Your task to perform on an android device: check google app version Image 0: 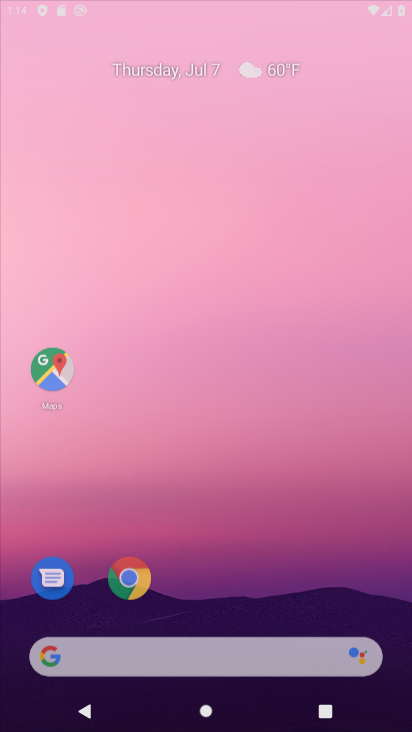
Step 0: drag from (210, 442) to (230, 137)
Your task to perform on an android device: check google app version Image 1: 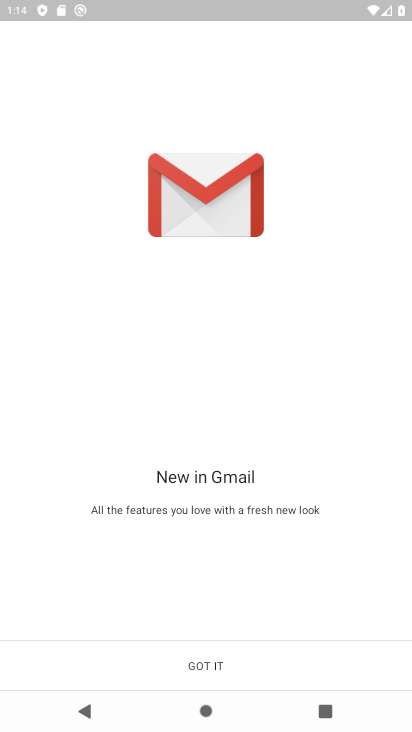
Step 1: press home button
Your task to perform on an android device: check google app version Image 2: 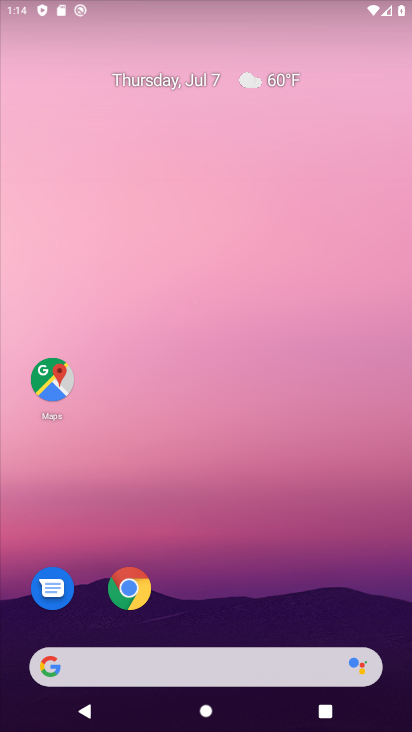
Step 2: drag from (201, 644) to (257, 69)
Your task to perform on an android device: check google app version Image 3: 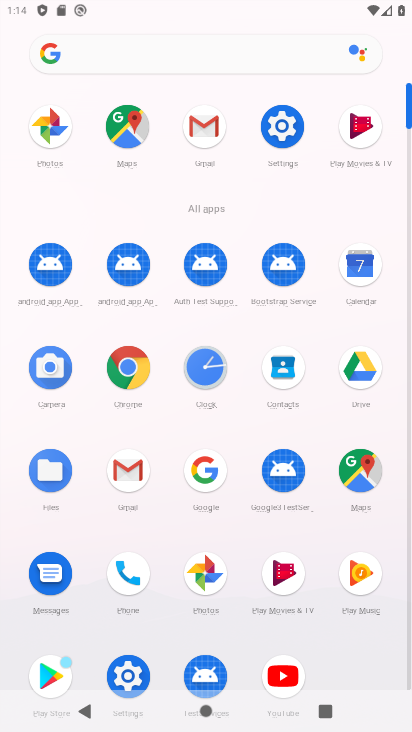
Step 3: click (129, 675)
Your task to perform on an android device: check google app version Image 4: 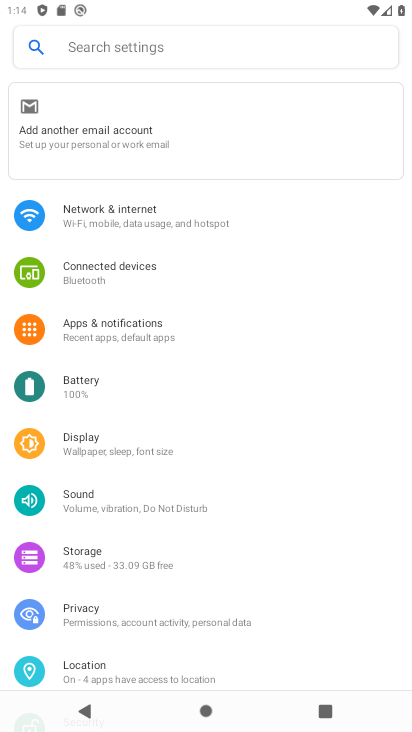
Step 4: click (157, 344)
Your task to perform on an android device: check google app version Image 5: 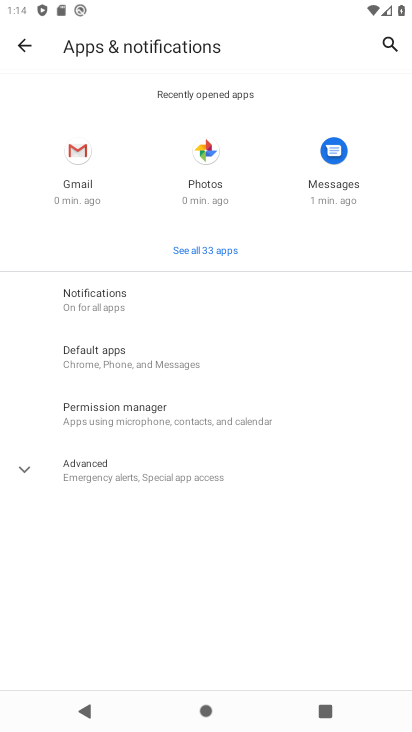
Step 5: click (227, 258)
Your task to perform on an android device: check google app version Image 6: 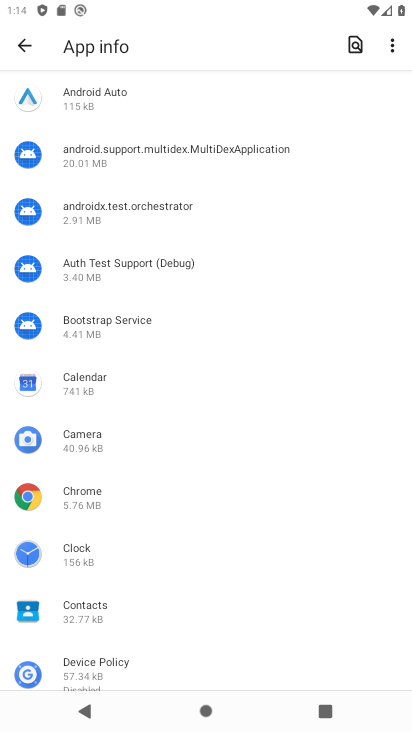
Step 6: drag from (103, 612) to (229, 99)
Your task to perform on an android device: check google app version Image 7: 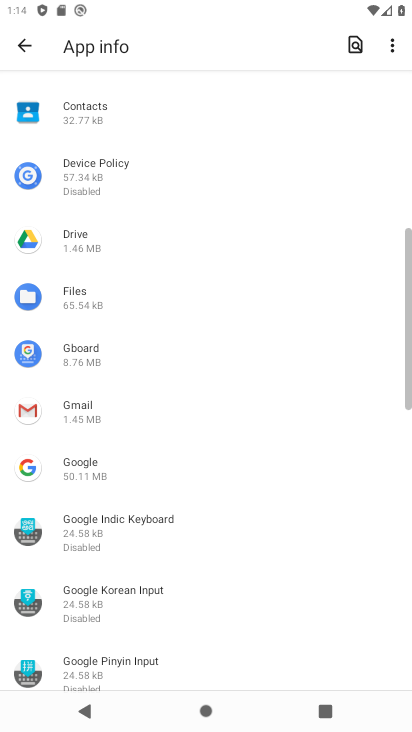
Step 7: click (64, 474)
Your task to perform on an android device: check google app version Image 8: 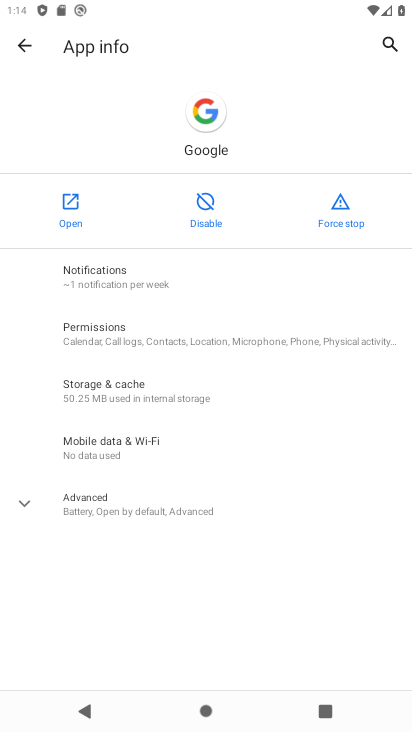
Step 8: click (166, 517)
Your task to perform on an android device: check google app version Image 9: 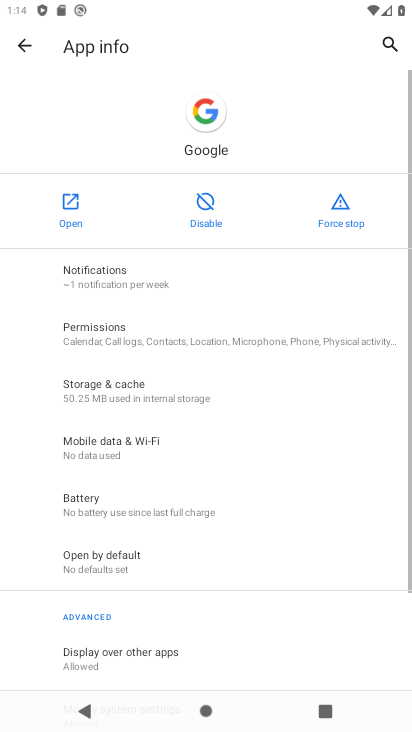
Step 9: task complete